Your task to perform on an android device: Go to internet settings Image 0: 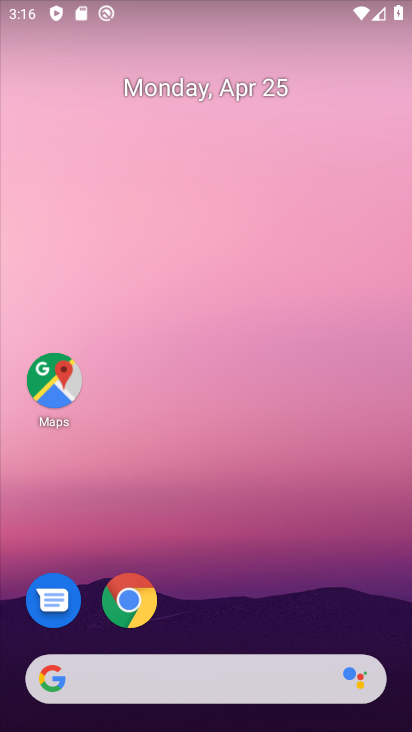
Step 0: drag from (282, 535) to (288, 5)
Your task to perform on an android device: Go to internet settings Image 1: 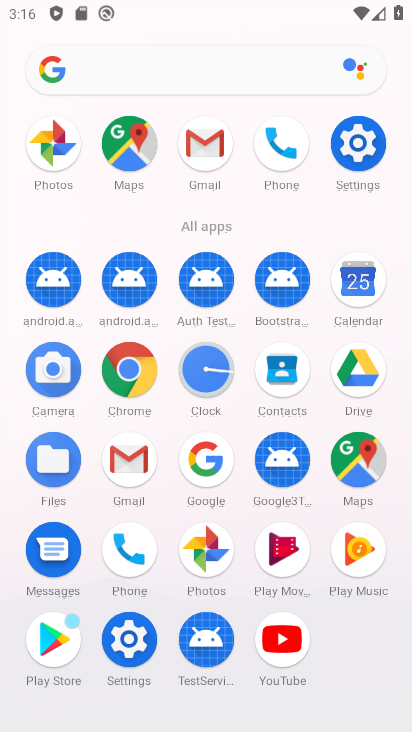
Step 1: click (351, 131)
Your task to perform on an android device: Go to internet settings Image 2: 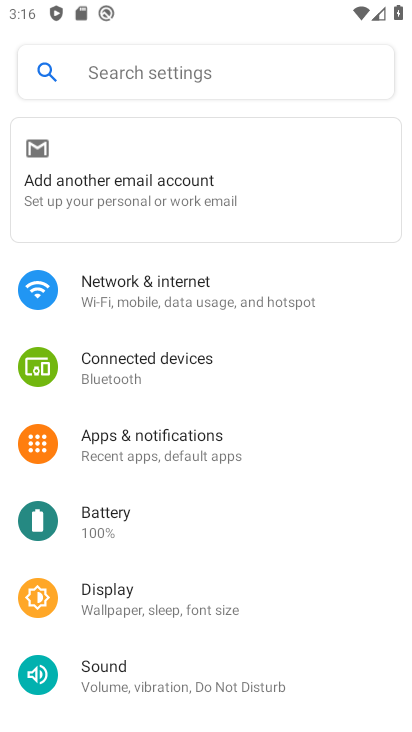
Step 2: click (289, 288)
Your task to perform on an android device: Go to internet settings Image 3: 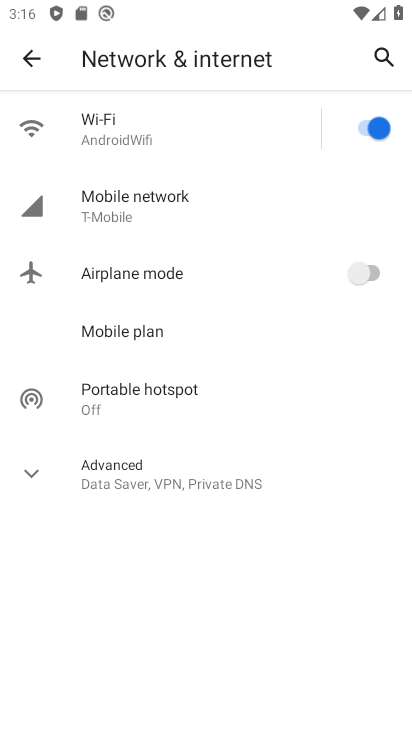
Step 3: task complete